Your task to perform on an android device: open a new tab in the chrome app Image 0: 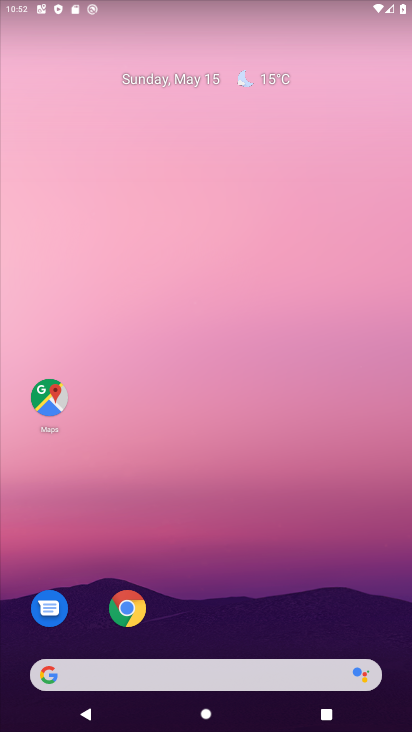
Step 0: click (126, 633)
Your task to perform on an android device: open a new tab in the chrome app Image 1: 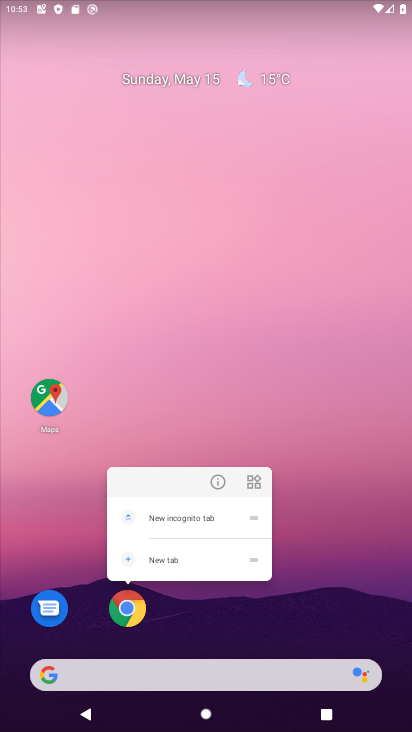
Step 1: click (127, 621)
Your task to perform on an android device: open a new tab in the chrome app Image 2: 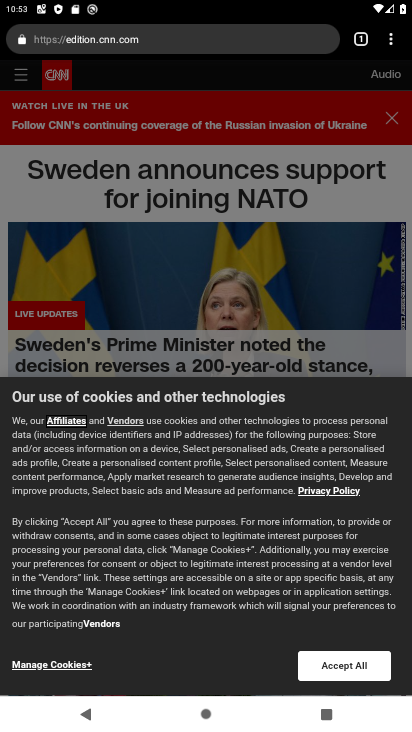
Step 2: click (358, 39)
Your task to perform on an android device: open a new tab in the chrome app Image 3: 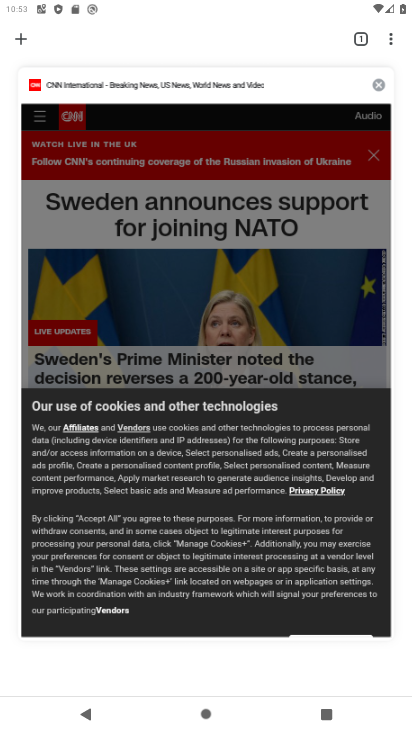
Step 3: click (22, 36)
Your task to perform on an android device: open a new tab in the chrome app Image 4: 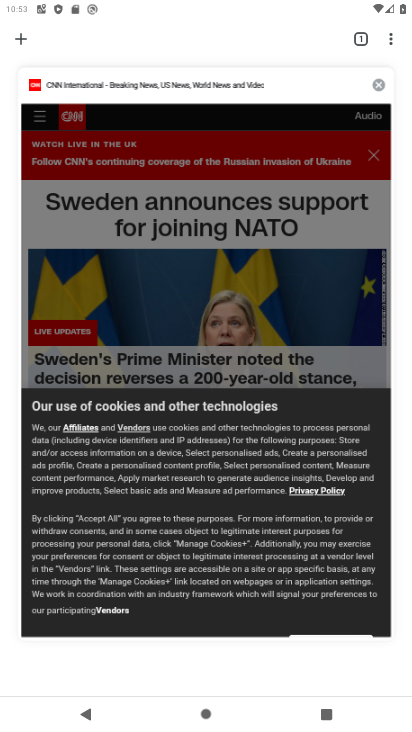
Step 4: click (18, 37)
Your task to perform on an android device: open a new tab in the chrome app Image 5: 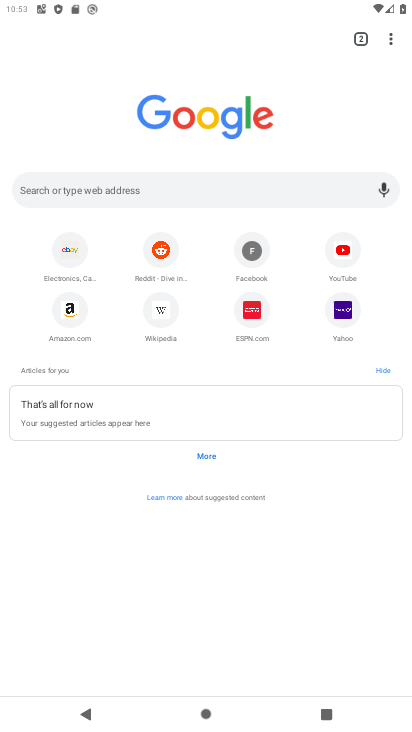
Step 5: task complete